Your task to perform on an android device: Open the phone app and click the voicemail tab. Image 0: 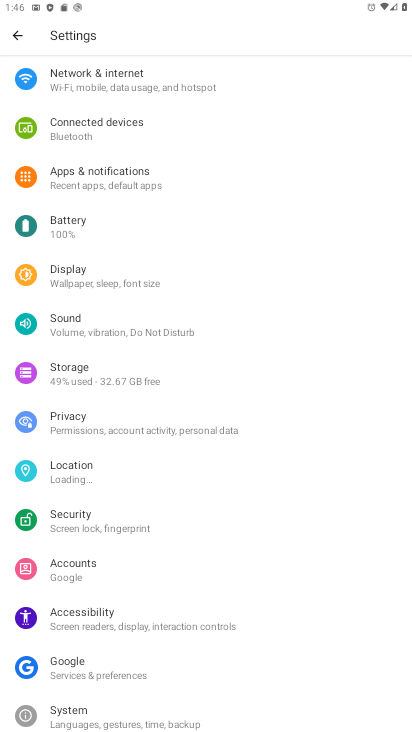
Step 0: press home button
Your task to perform on an android device: Open the phone app and click the voicemail tab. Image 1: 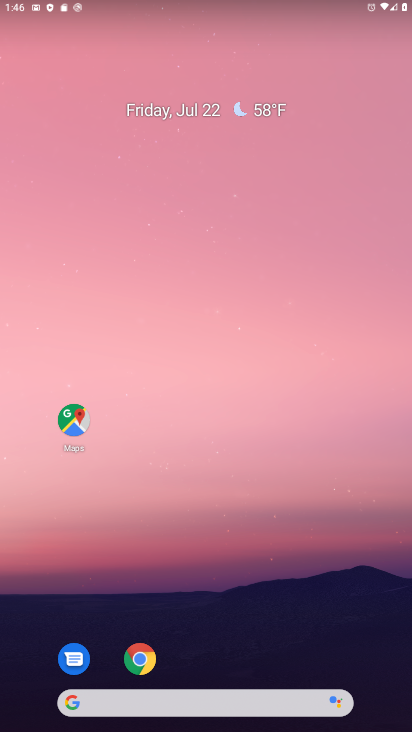
Step 1: drag from (202, 671) to (202, 53)
Your task to perform on an android device: Open the phone app and click the voicemail tab. Image 2: 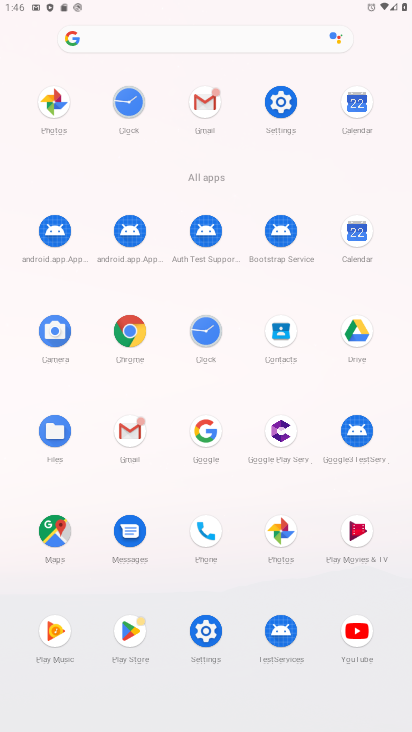
Step 2: click (194, 520)
Your task to perform on an android device: Open the phone app and click the voicemail tab. Image 3: 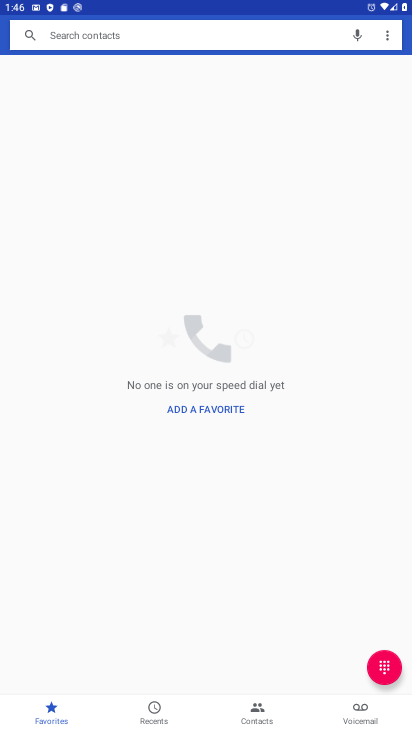
Step 3: click (364, 708)
Your task to perform on an android device: Open the phone app and click the voicemail tab. Image 4: 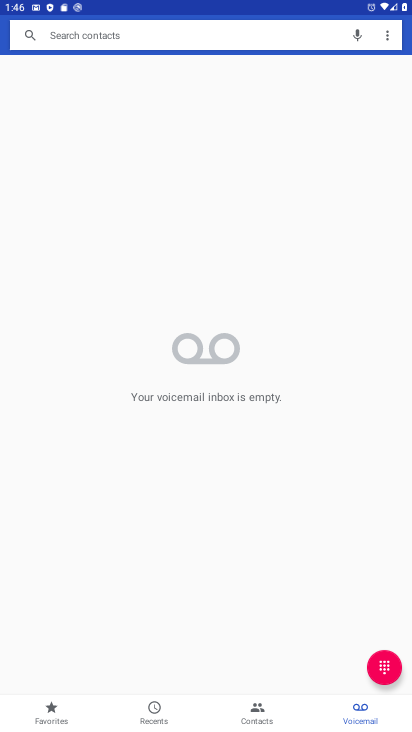
Step 4: task complete